Your task to perform on an android device: Go to Android settings Image 0: 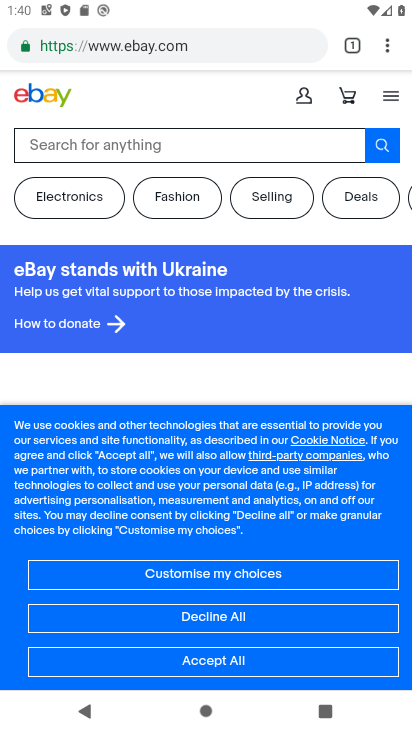
Step 0: press home button
Your task to perform on an android device: Go to Android settings Image 1: 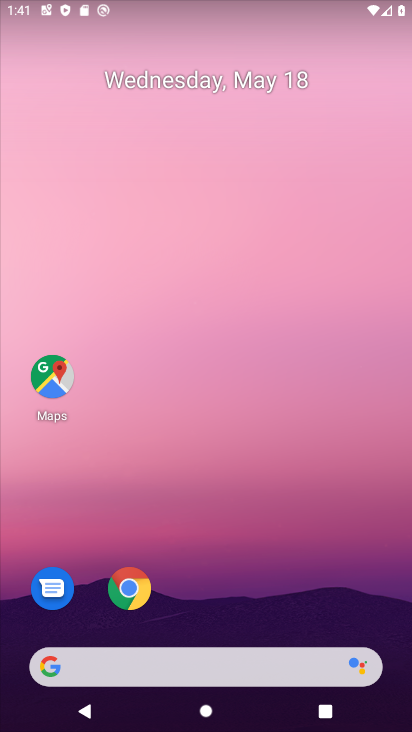
Step 1: drag from (314, 558) to (306, 105)
Your task to perform on an android device: Go to Android settings Image 2: 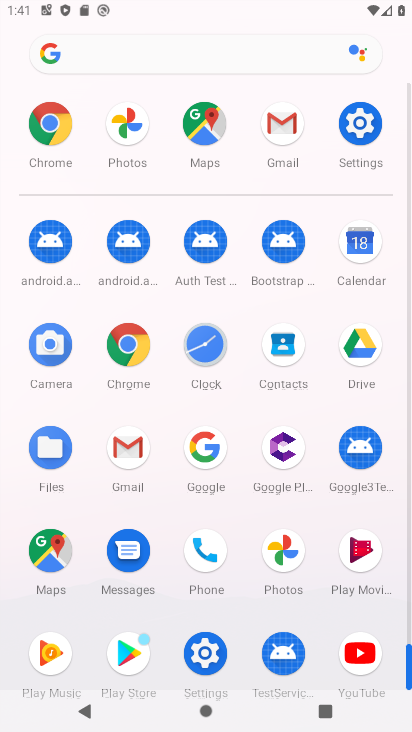
Step 2: click (359, 125)
Your task to perform on an android device: Go to Android settings Image 3: 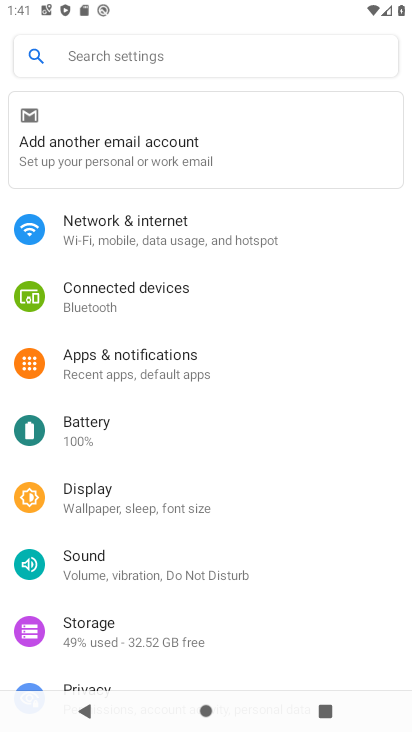
Step 3: drag from (334, 491) to (332, 400)
Your task to perform on an android device: Go to Android settings Image 4: 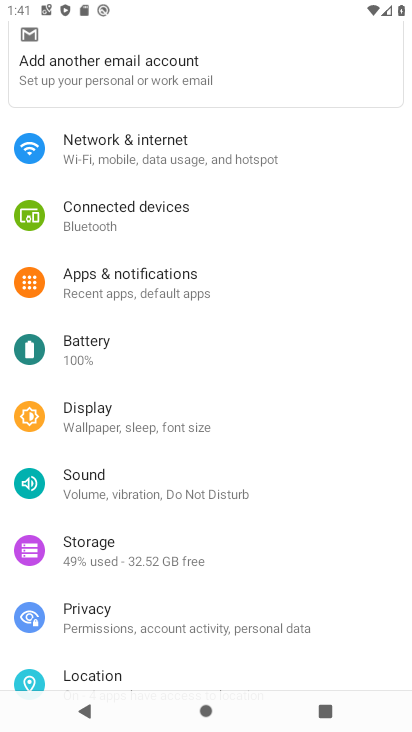
Step 4: drag from (321, 549) to (322, 347)
Your task to perform on an android device: Go to Android settings Image 5: 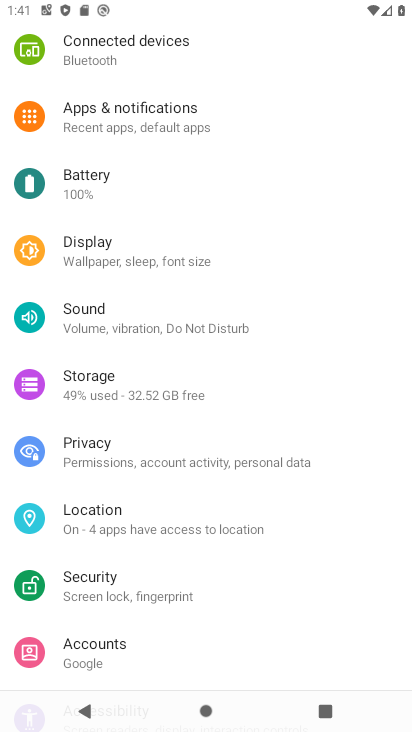
Step 5: drag from (326, 584) to (334, 368)
Your task to perform on an android device: Go to Android settings Image 6: 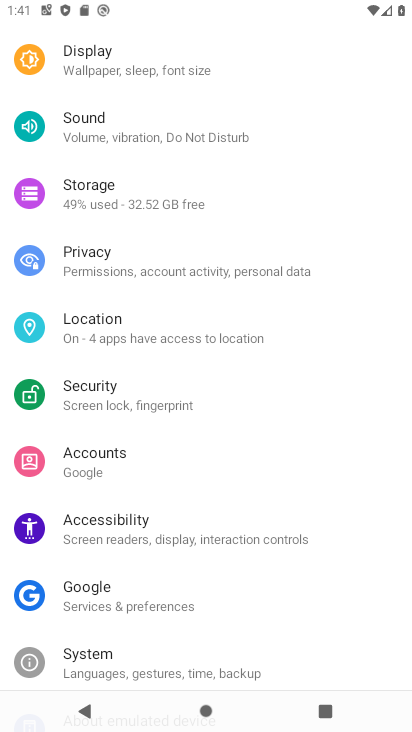
Step 6: drag from (321, 573) to (341, 414)
Your task to perform on an android device: Go to Android settings Image 7: 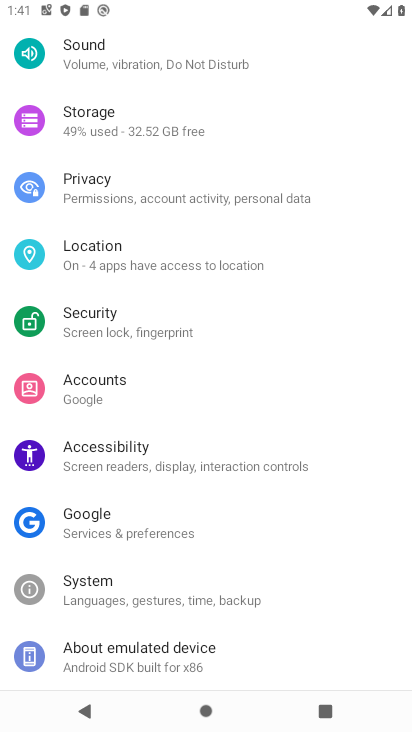
Step 7: drag from (305, 632) to (309, 431)
Your task to perform on an android device: Go to Android settings Image 8: 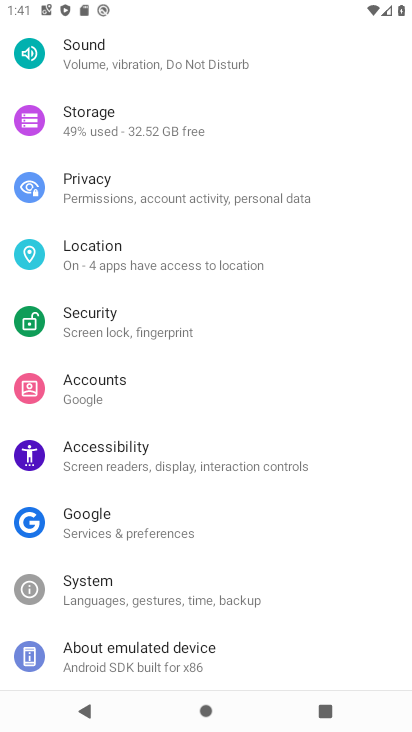
Step 8: click (138, 600)
Your task to perform on an android device: Go to Android settings Image 9: 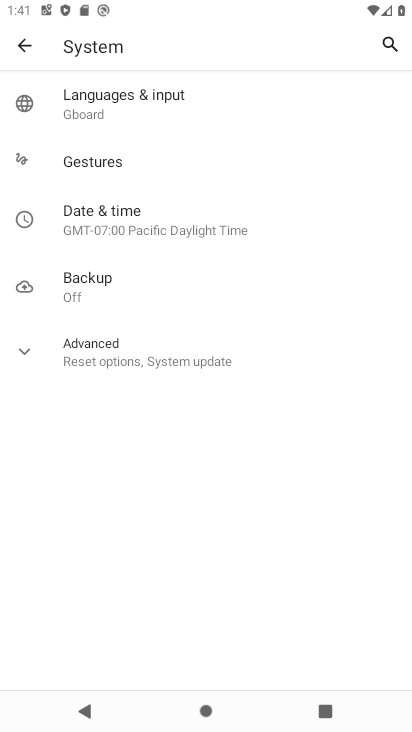
Step 9: click (181, 362)
Your task to perform on an android device: Go to Android settings Image 10: 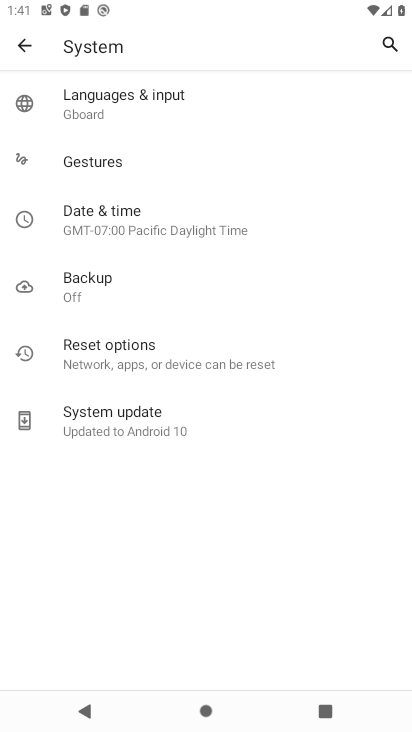
Step 10: click (142, 416)
Your task to perform on an android device: Go to Android settings Image 11: 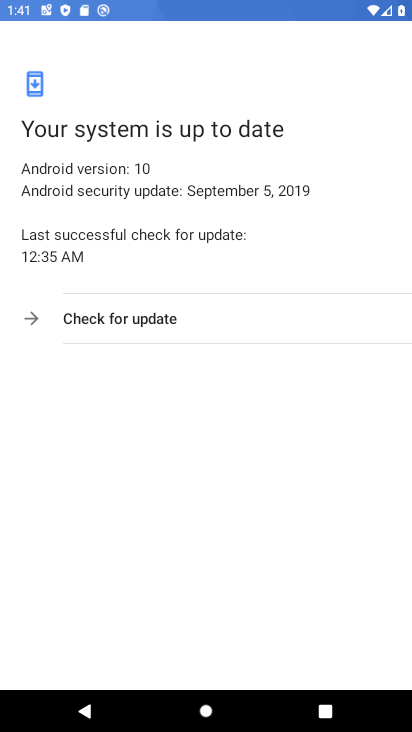
Step 11: task complete